Your task to perform on an android device: toggle data saver in the chrome app Image 0: 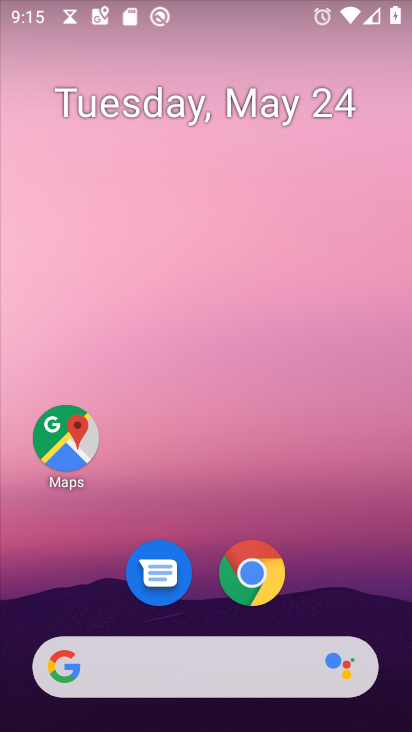
Step 0: drag from (348, 568) to (310, 5)
Your task to perform on an android device: toggle data saver in the chrome app Image 1: 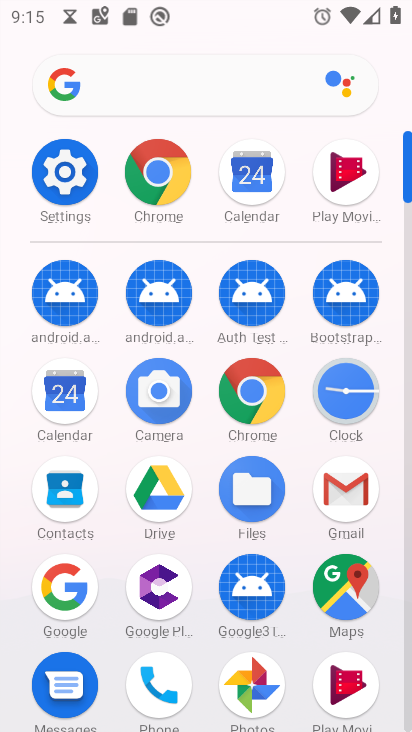
Step 1: click (159, 180)
Your task to perform on an android device: toggle data saver in the chrome app Image 2: 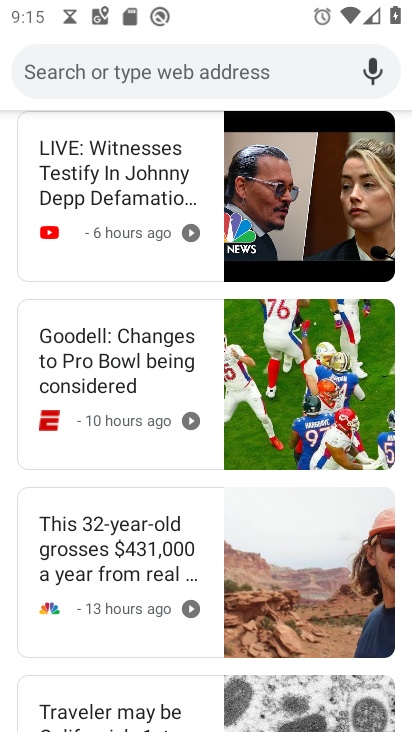
Step 2: drag from (317, 105) to (392, 636)
Your task to perform on an android device: toggle data saver in the chrome app Image 3: 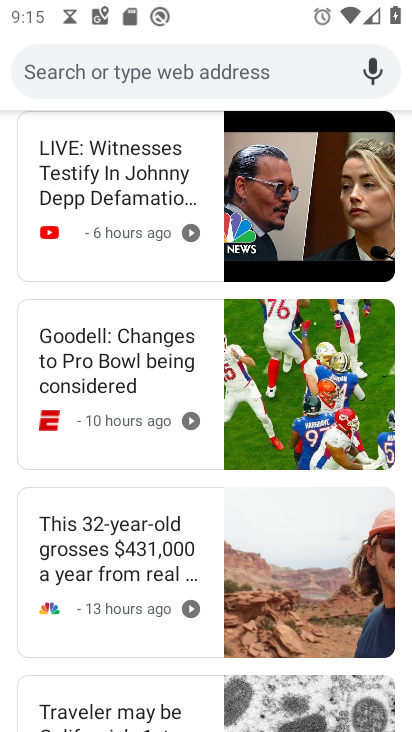
Step 3: drag from (216, 248) to (257, 723)
Your task to perform on an android device: toggle data saver in the chrome app Image 4: 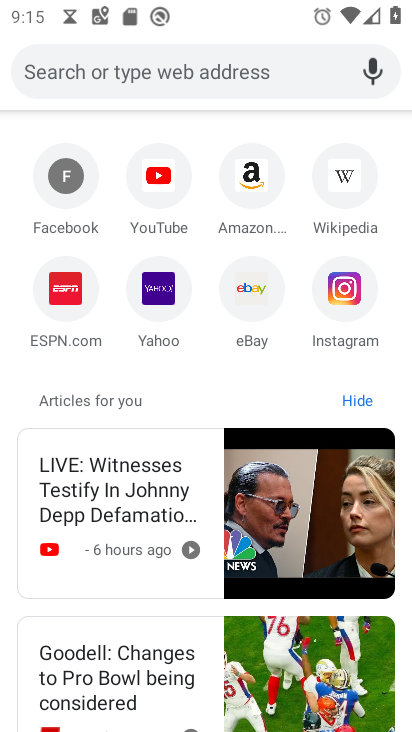
Step 4: drag from (148, 304) to (221, 729)
Your task to perform on an android device: toggle data saver in the chrome app Image 5: 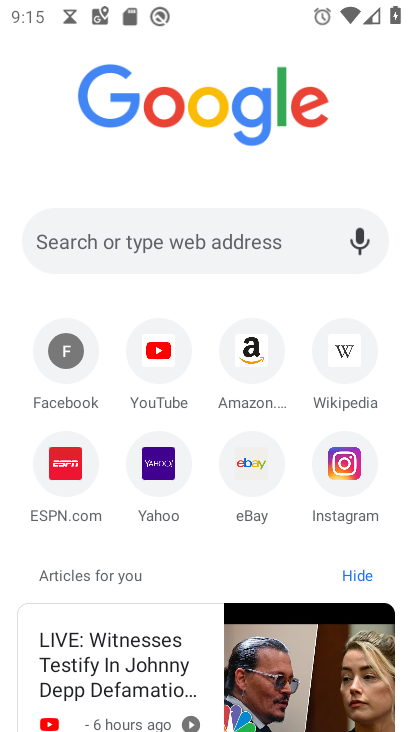
Step 5: drag from (400, 294) to (387, 631)
Your task to perform on an android device: toggle data saver in the chrome app Image 6: 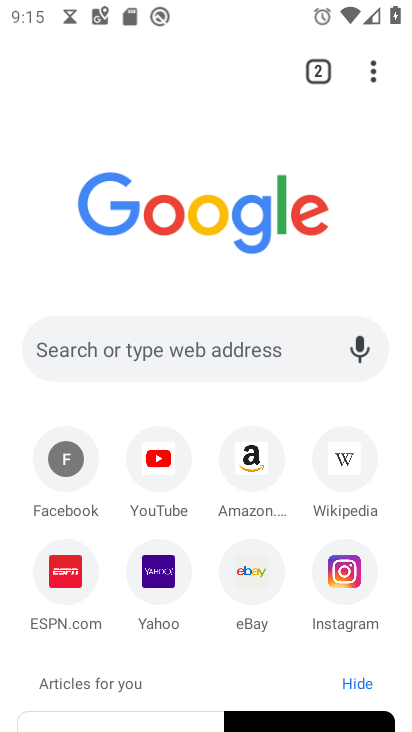
Step 6: drag from (378, 68) to (178, 596)
Your task to perform on an android device: toggle data saver in the chrome app Image 7: 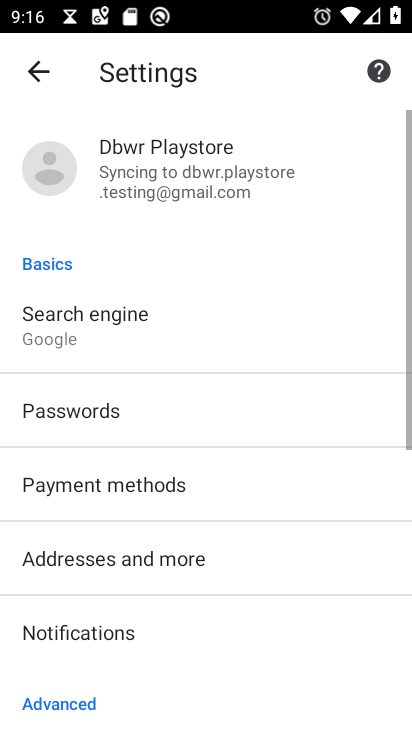
Step 7: drag from (186, 605) to (153, 200)
Your task to perform on an android device: toggle data saver in the chrome app Image 8: 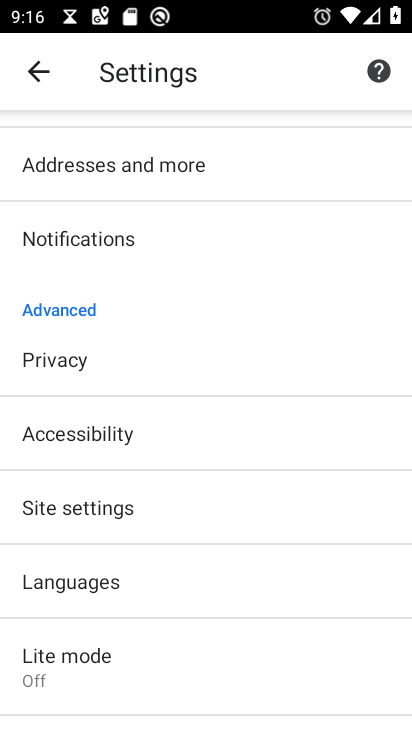
Step 8: click (122, 686)
Your task to perform on an android device: toggle data saver in the chrome app Image 9: 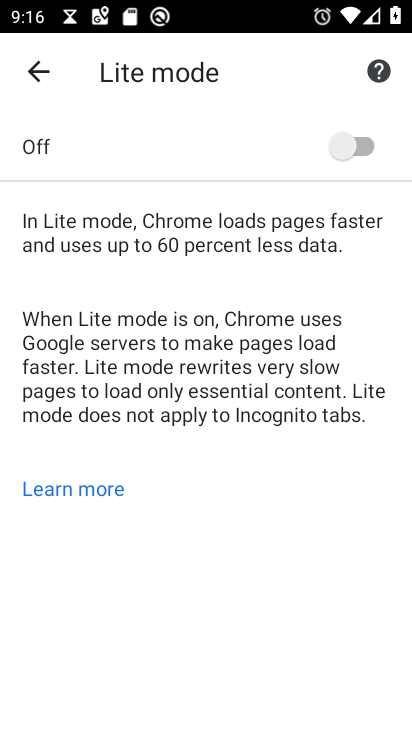
Step 9: click (348, 161)
Your task to perform on an android device: toggle data saver in the chrome app Image 10: 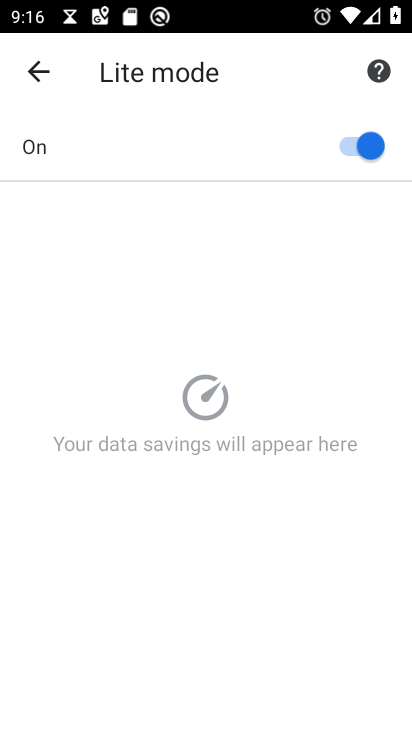
Step 10: task complete